Your task to perform on an android device: turn on the 12-hour format for clock Image 0: 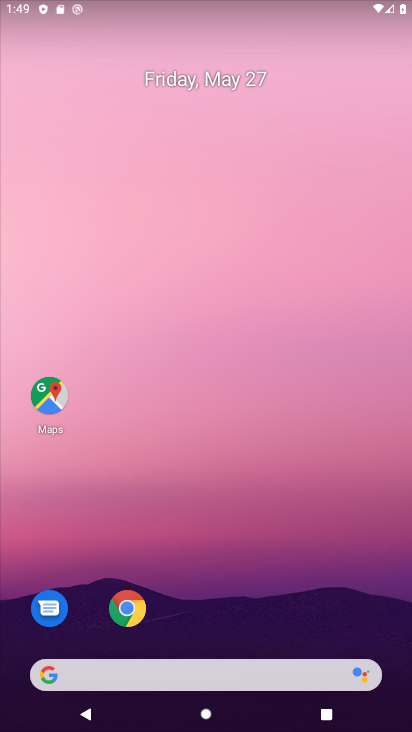
Step 0: press home button
Your task to perform on an android device: turn on the 12-hour format for clock Image 1: 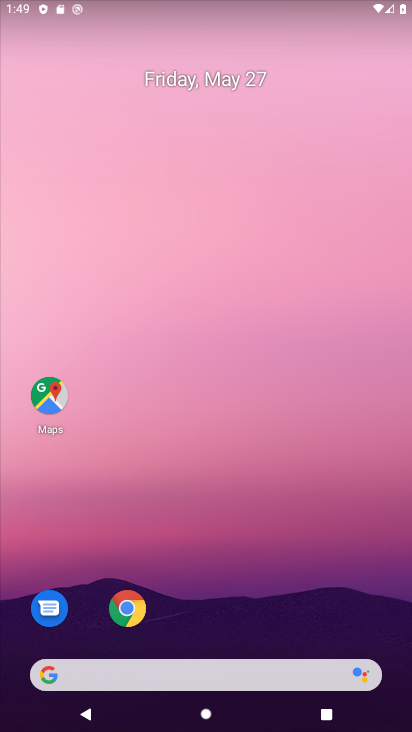
Step 1: click (264, 196)
Your task to perform on an android device: turn on the 12-hour format for clock Image 2: 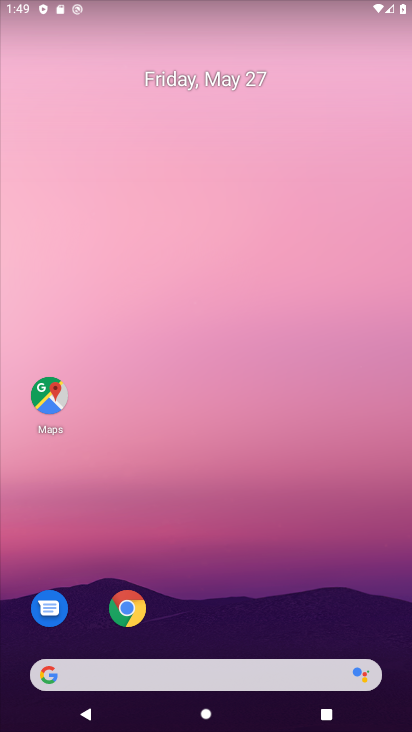
Step 2: drag from (297, 623) to (260, 131)
Your task to perform on an android device: turn on the 12-hour format for clock Image 3: 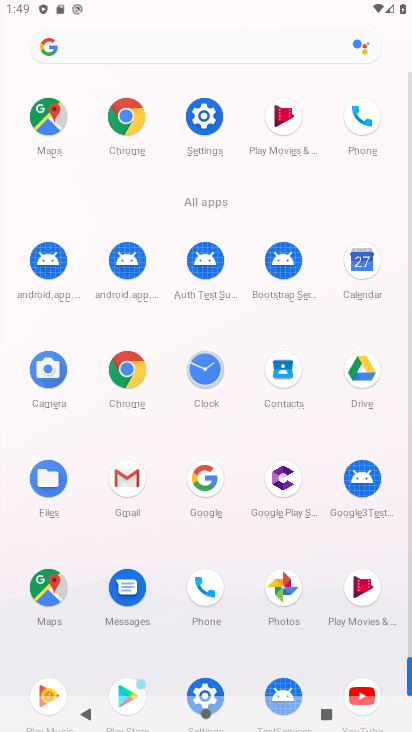
Step 3: click (201, 357)
Your task to perform on an android device: turn on the 12-hour format for clock Image 4: 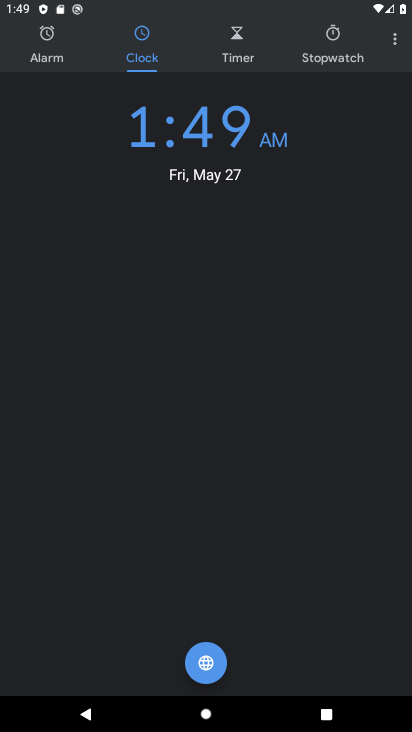
Step 4: click (396, 38)
Your task to perform on an android device: turn on the 12-hour format for clock Image 5: 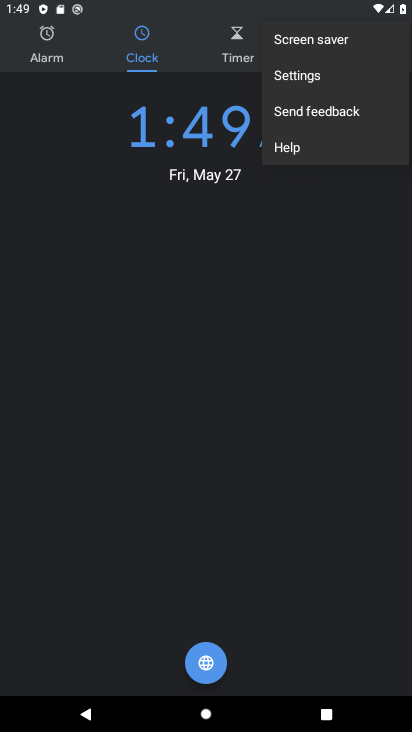
Step 5: click (316, 73)
Your task to perform on an android device: turn on the 12-hour format for clock Image 6: 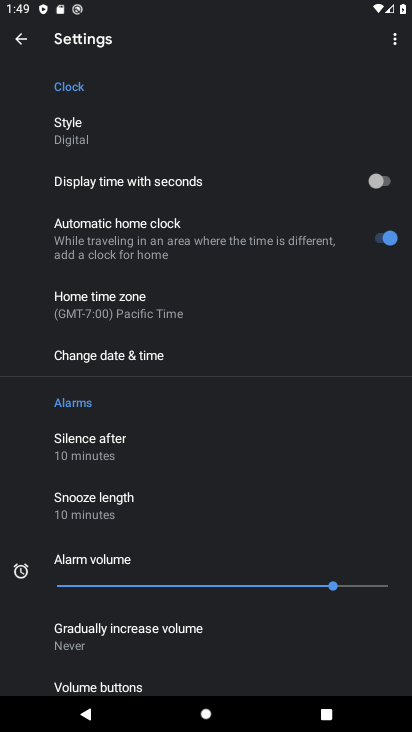
Step 6: click (143, 353)
Your task to perform on an android device: turn on the 12-hour format for clock Image 7: 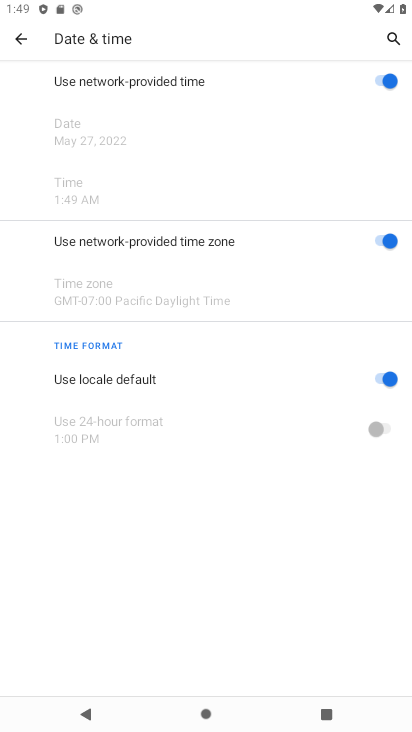
Step 7: task complete